Your task to perform on an android device: What's on my calendar tomorrow? Image 0: 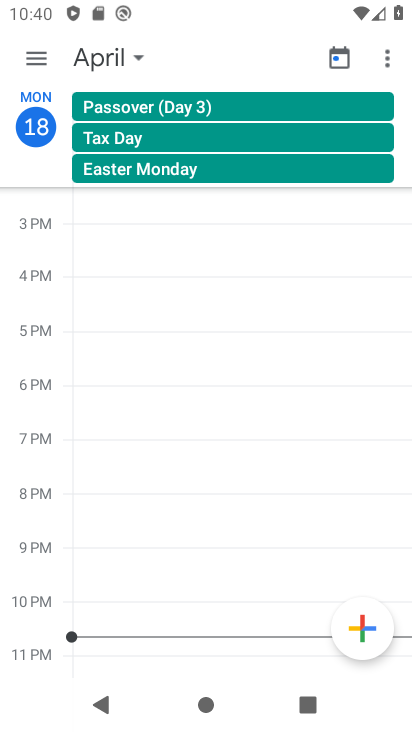
Step 0: click (110, 71)
Your task to perform on an android device: What's on my calendar tomorrow? Image 1: 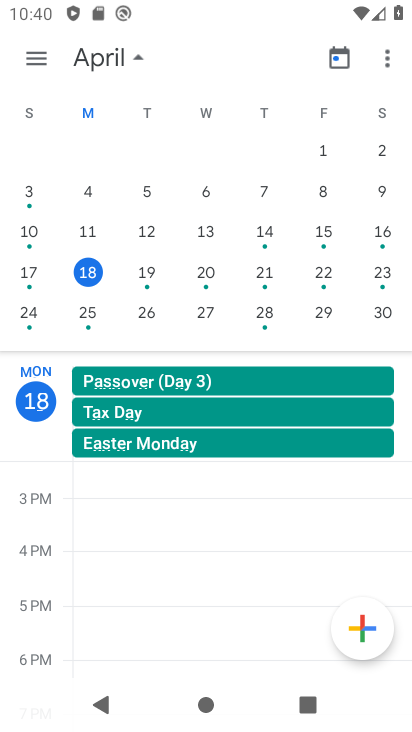
Step 1: click (142, 264)
Your task to perform on an android device: What's on my calendar tomorrow? Image 2: 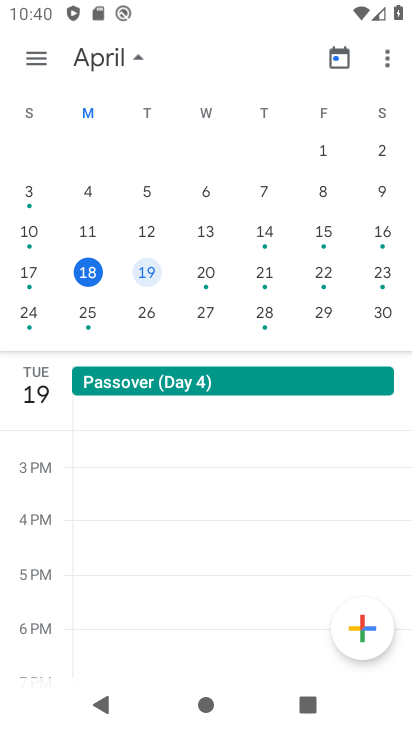
Step 2: click (136, 52)
Your task to perform on an android device: What's on my calendar tomorrow? Image 3: 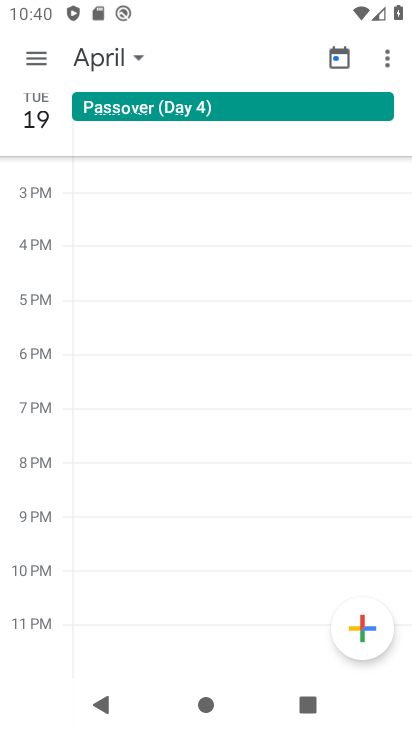
Step 3: task complete